Your task to perform on an android device: Go to internet settings Image 0: 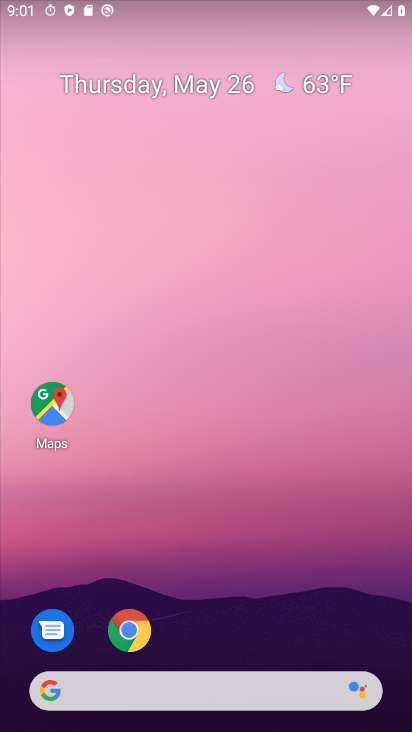
Step 0: drag from (254, 693) to (208, 80)
Your task to perform on an android device: Go to internet settings Image 1: 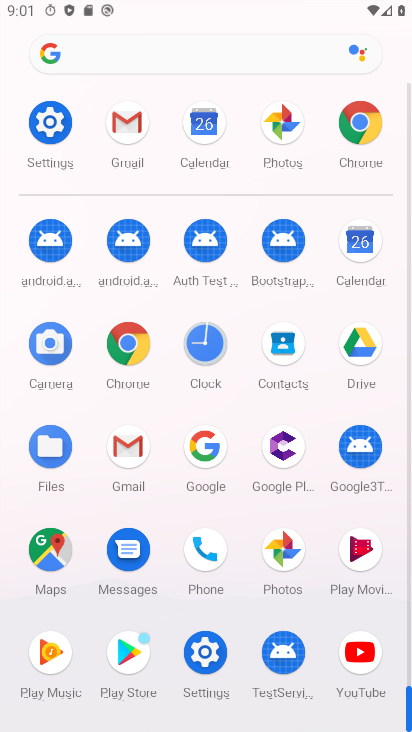
Step 1: click (52, 114)
Your task to perform on an android device: Go to internet settings Image 2: 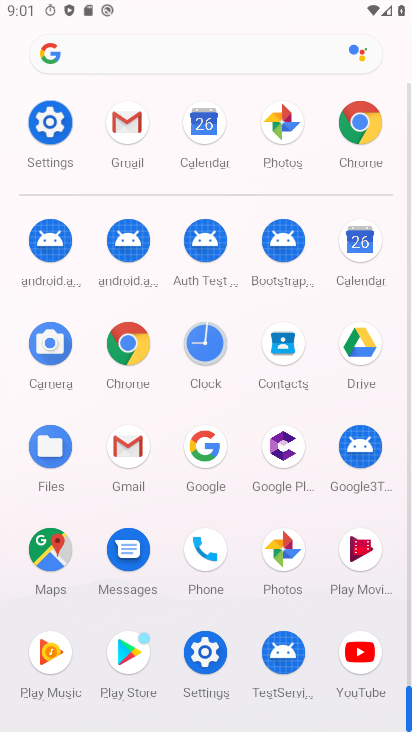
Step 2: click (55, 119)
Your task to perform on an android device: Go to internet settings Image 3: 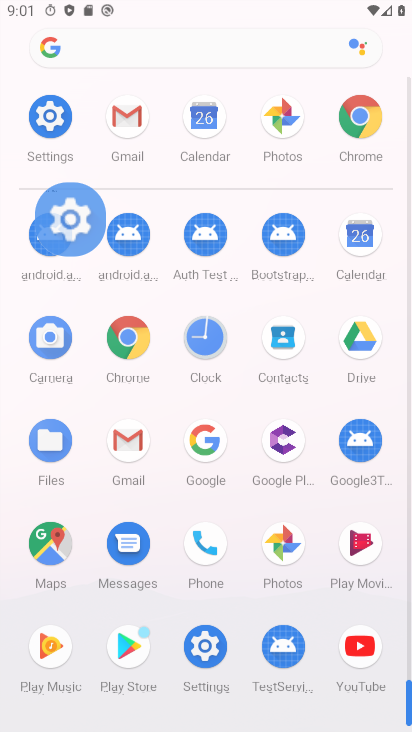
Step 3: click (71, 133)
Your task to perform on an android device: Go to internet settings Image 4: 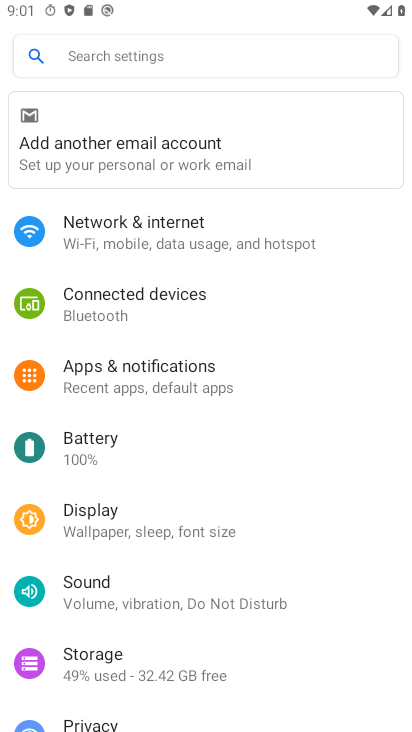
Step 4: click (169, 233)
Your task to perform on an android device: Go to internet settings Image 5: 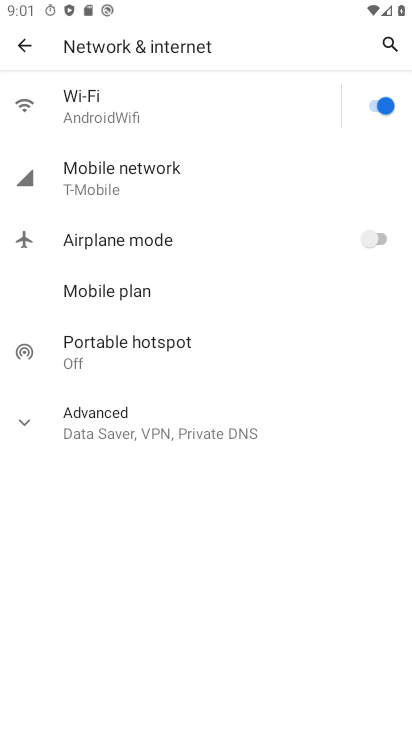
Step 5: task complete